Your task to perform on an android device: Go to battery settings Image 0: 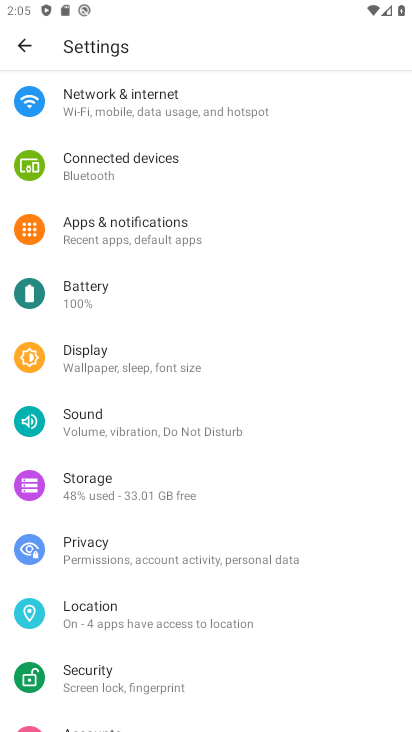
Step 0: click (99, 295)
Your task to perform on an android device: Go to battery settings Image 1: 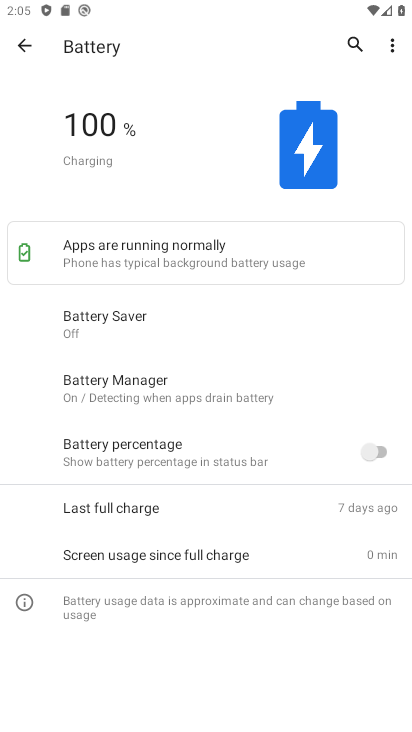
Step 1: task complete